Your task to perform on an android device: create a new album in the google photos Image 0: 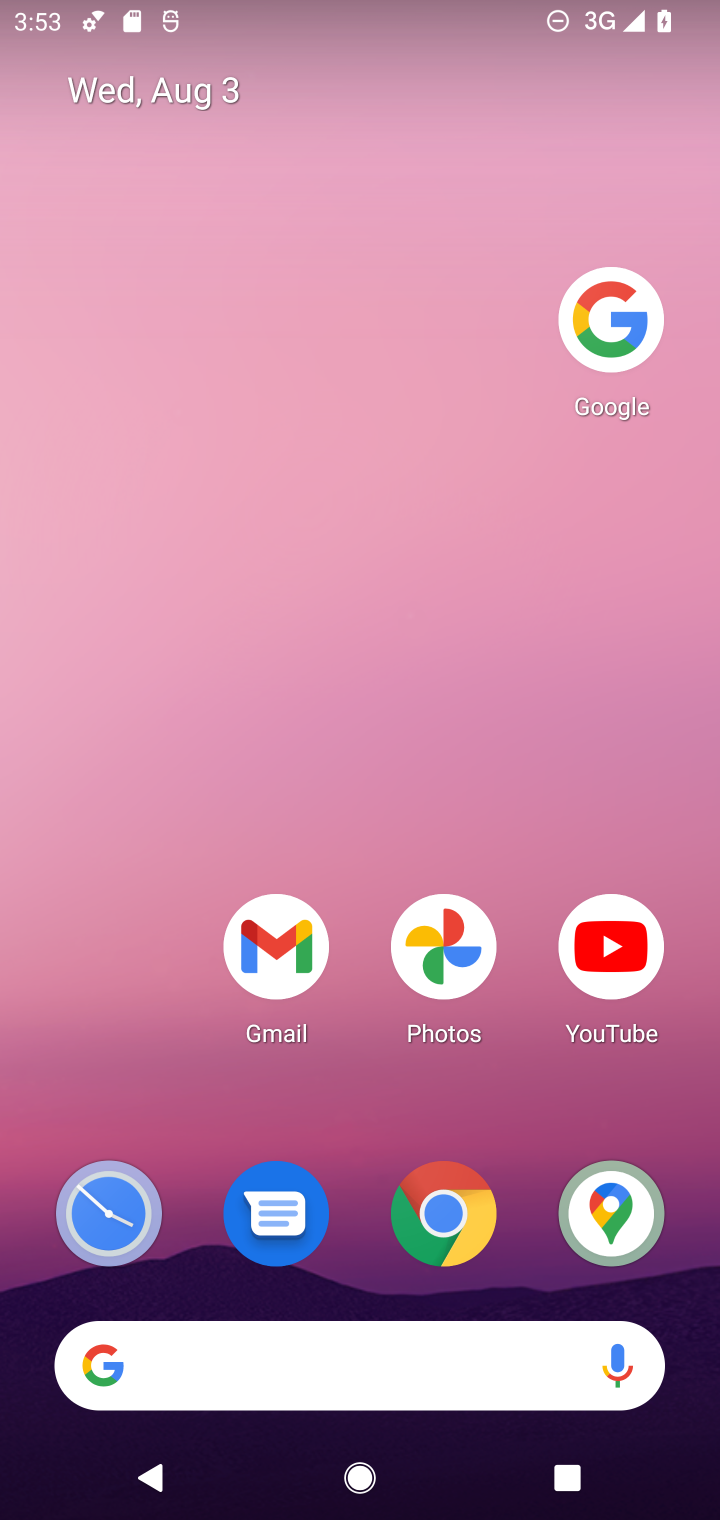
Step 0: drag from (448, 13) to (449, 123)
Your task to perform on an android device: create a new album in the google photos Image 1: 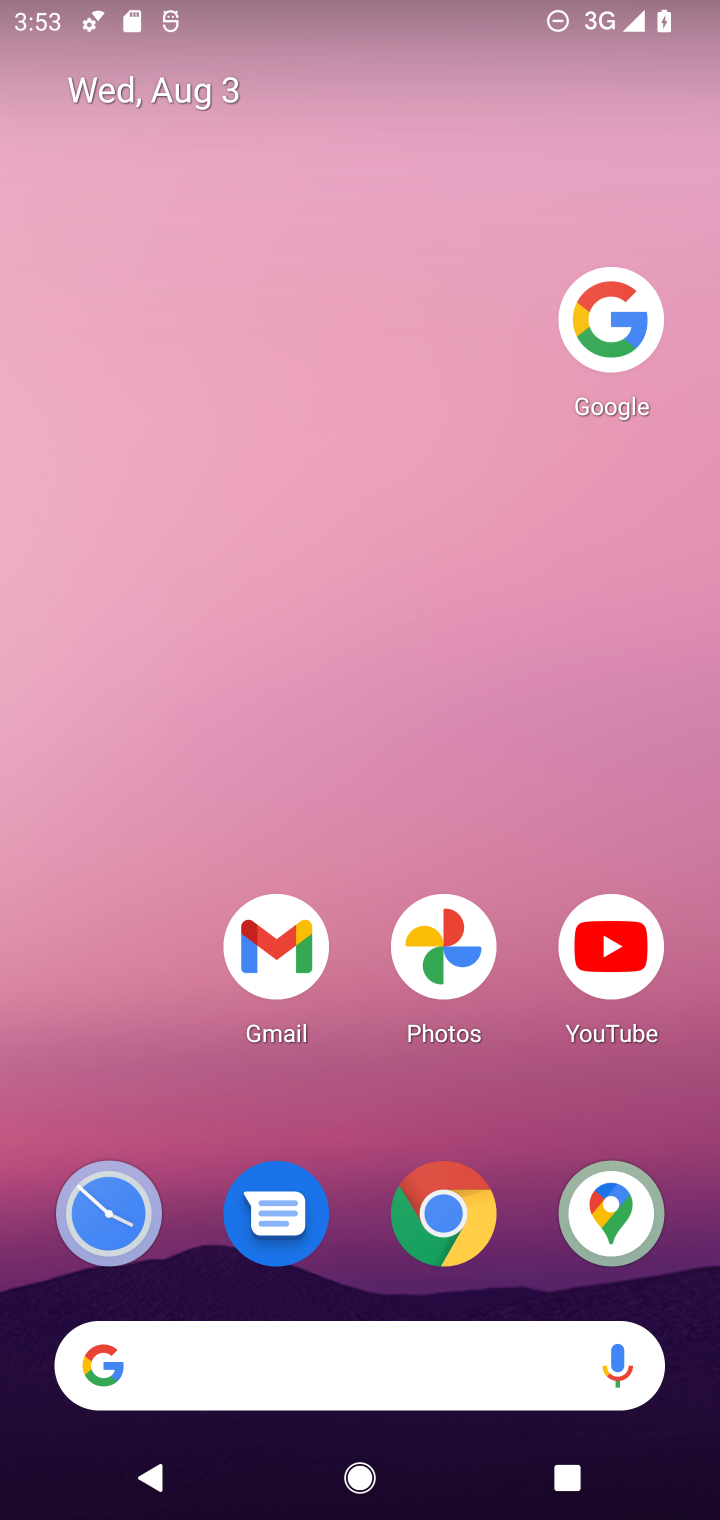
Step 1: drag from (363, 1249) to (319, 464)
Your task to perform on an android device: create a new album in the google photos Image 2: 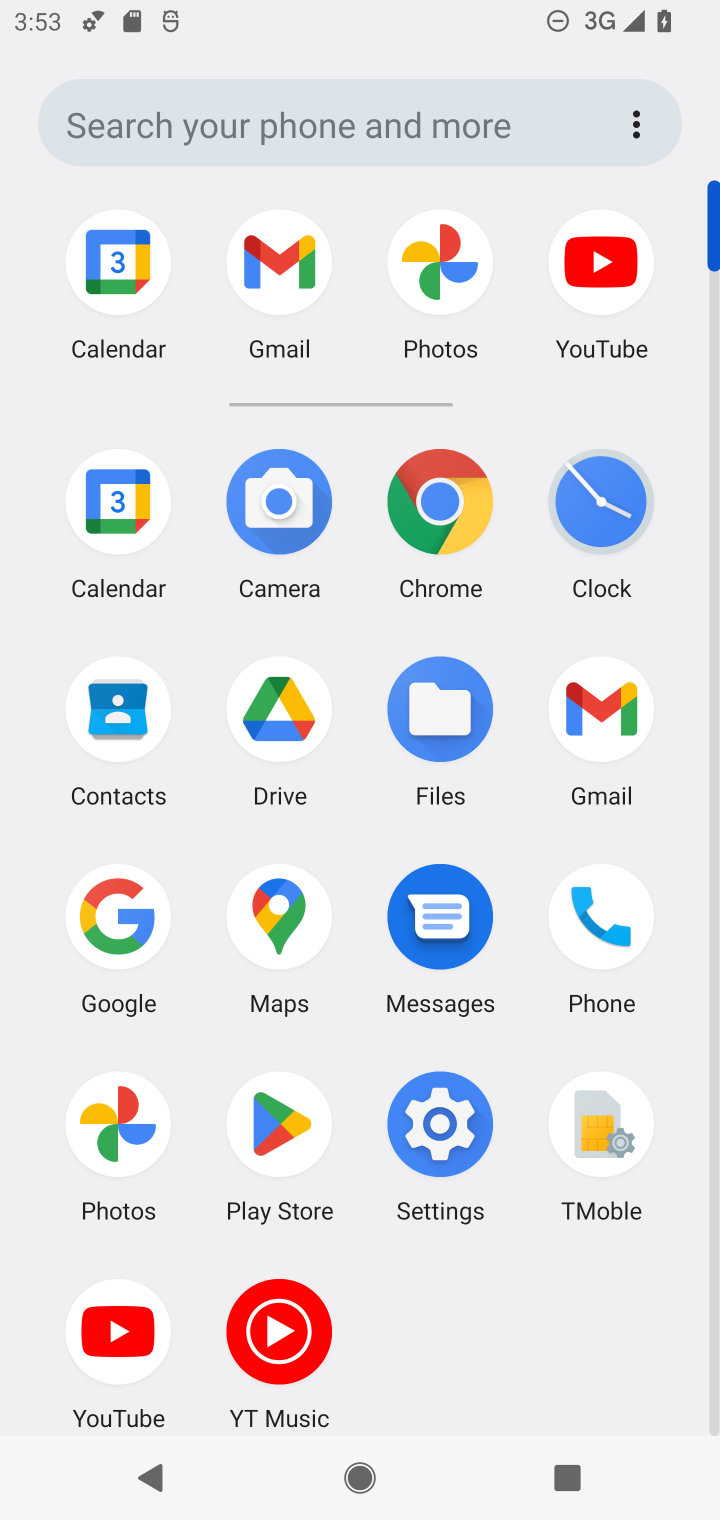
Step 2: click (101, 1085)
Your task to perform on an android device: create a new album in the google photos Image 3: 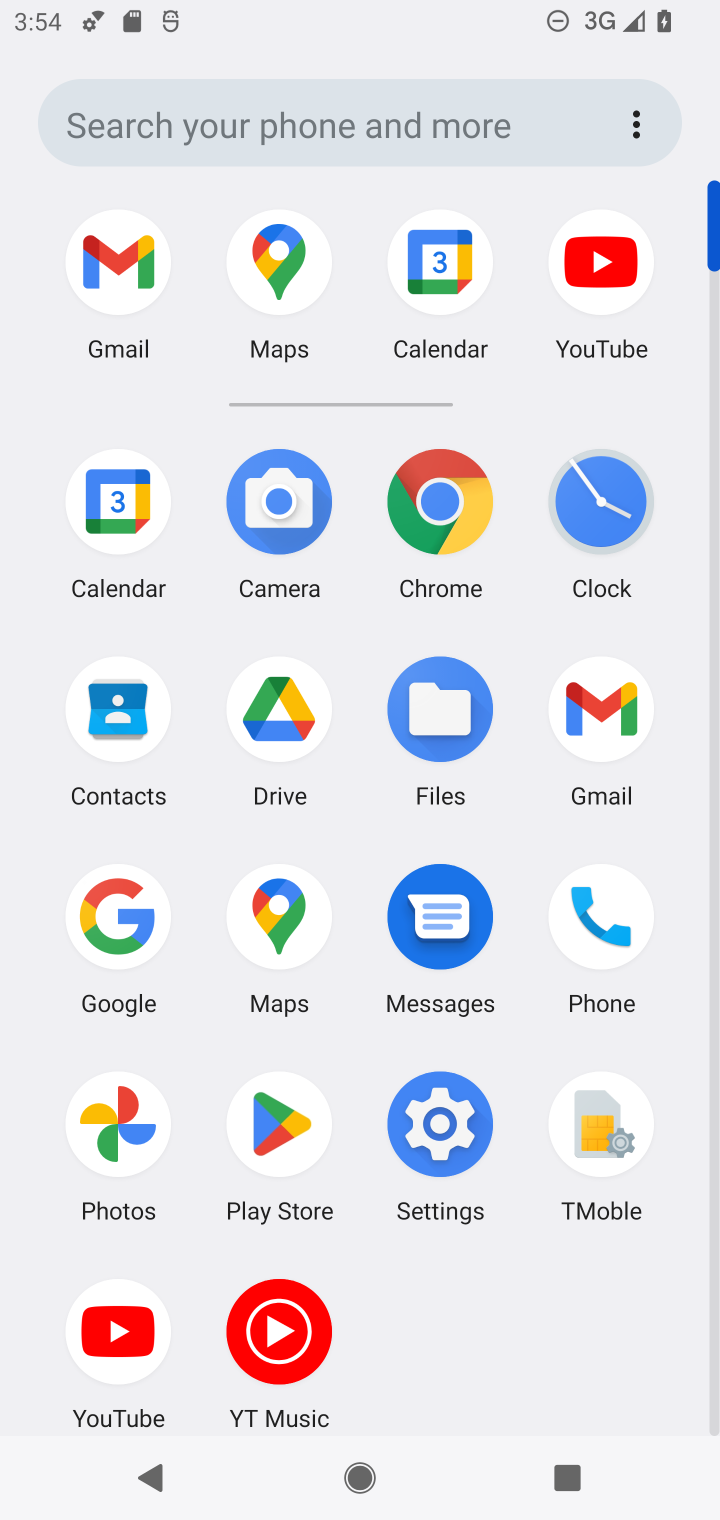
Step 3: click (136, 1115)
Your task to perform on an android device: create a new album in the google photos Image 4: 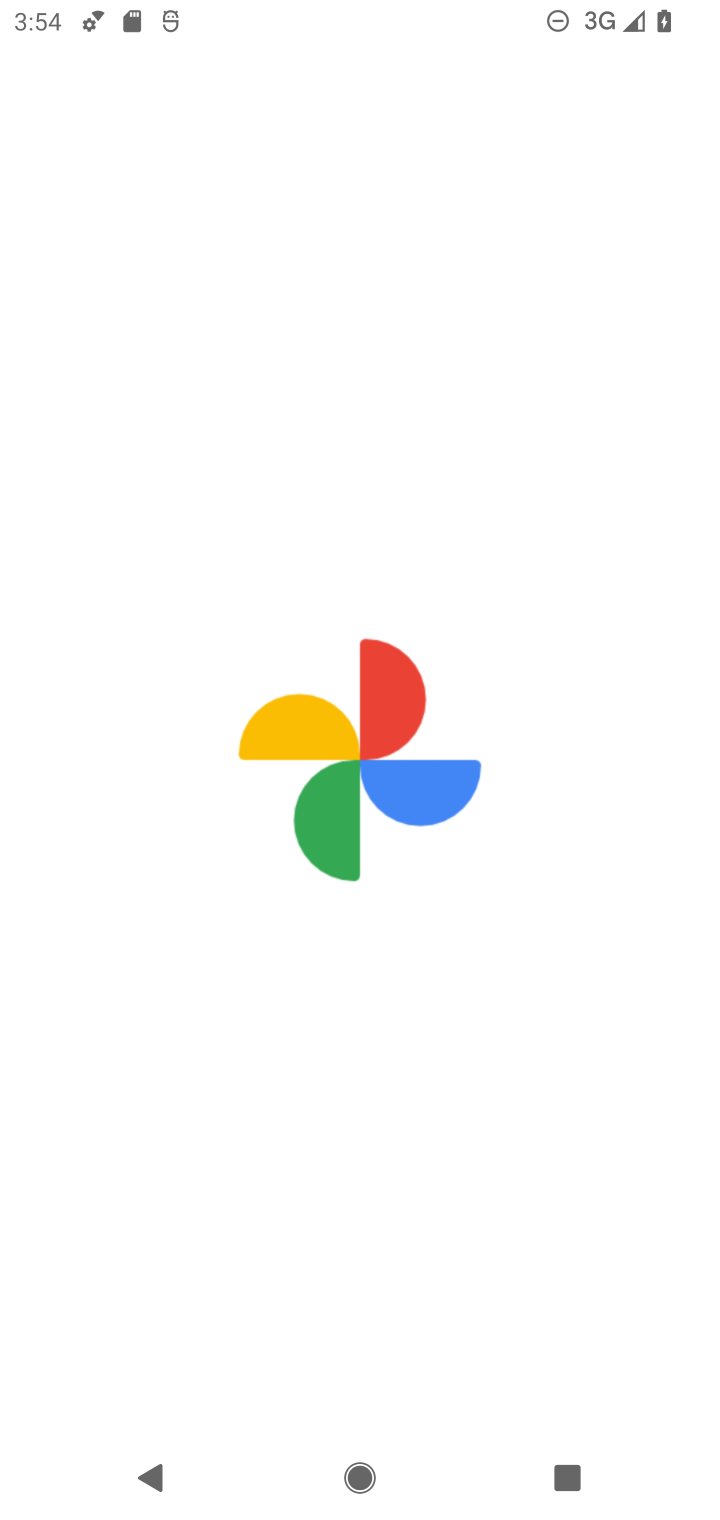
Step 4: task complete